Your task to perform on an android device: Toggle the flashlight Image 0: 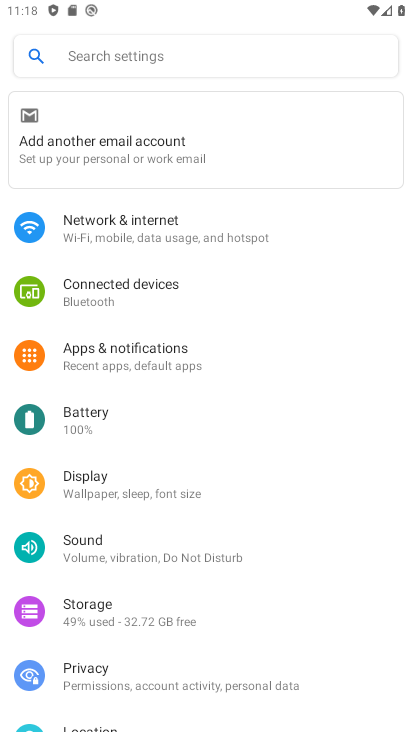
Step 0: press home button
Your task to perform on an android device: Toggle the flashlight Image 1: 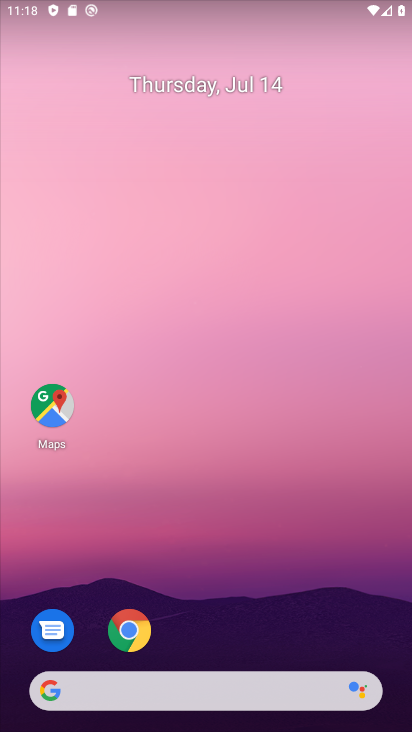
Step 1: task complete